Your task to perform on an android device: Do I have any events this weekend? Image 0: 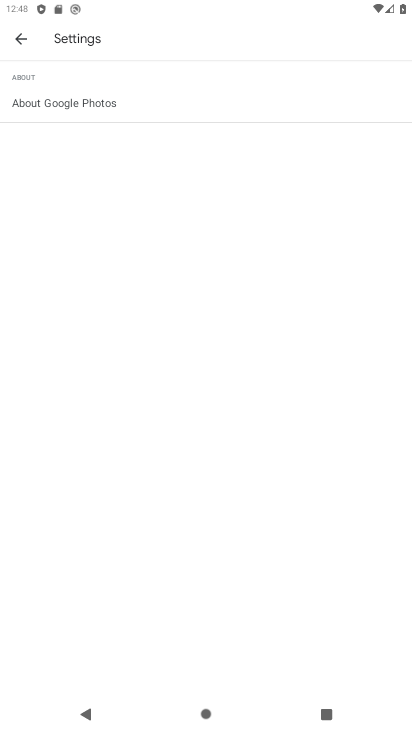
Step 0: press home button
Your task to perform on an android device: Do I have any events this weekend? Image 1: 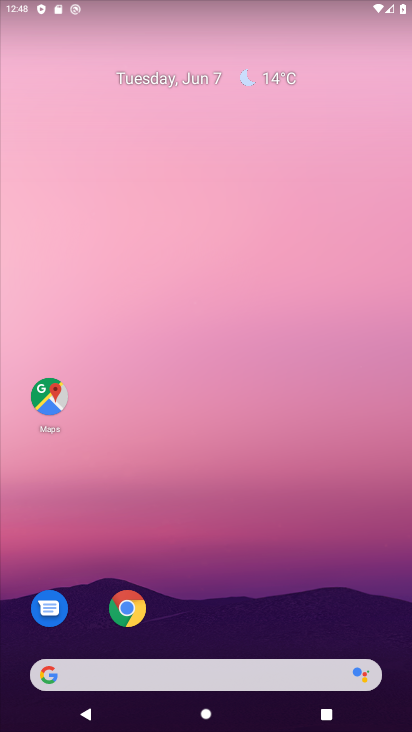
Step 1: drag from (277, 611) to (187, 46)
Your task to perform on an android device: Do I have any events this weekend? Image 2: 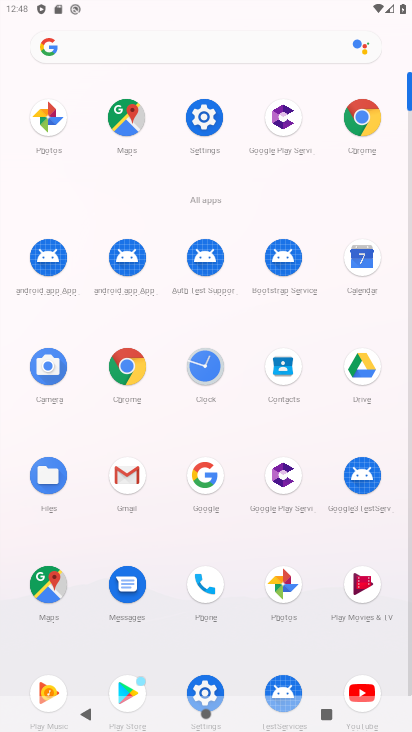
Step 2: click (368, 256)
Your task to perform on an android device: Do I have any events this weekend? Image 3: 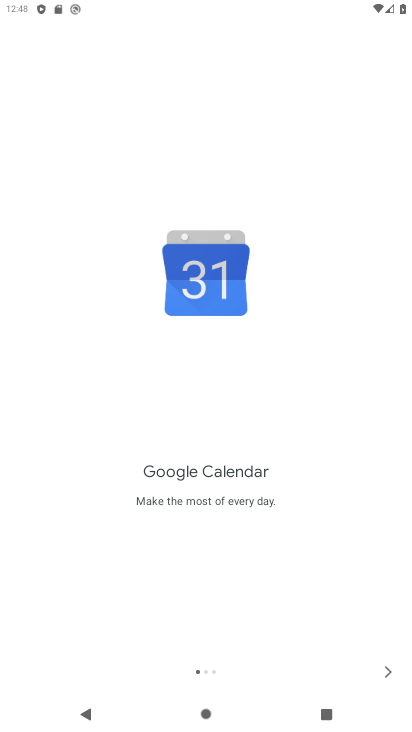
Step 3: click (389, 667)
Your task to perform on an android device: Do I have any events this weekend? Image 4: 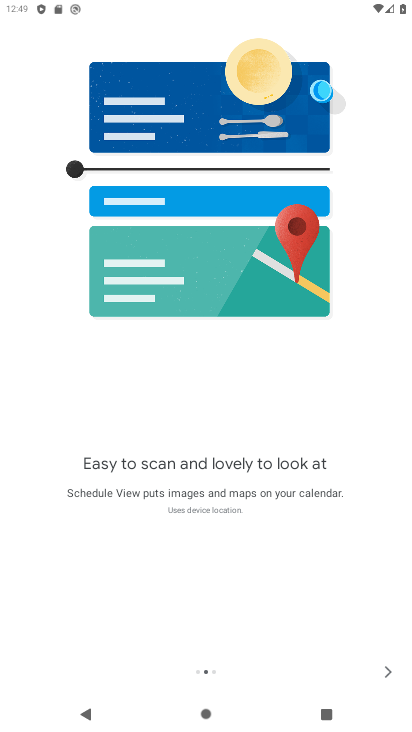
Step 4: click (389, 667)
Your task to perform on an android device: Do I have any events this weekend? Image 5: 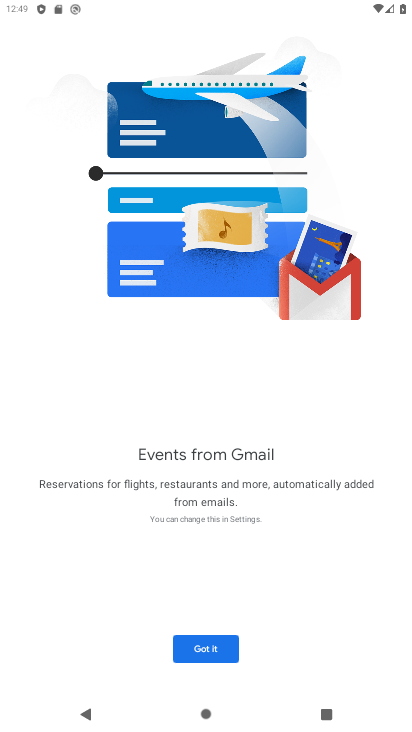
Step 5: click (218, 640)
Your task to perform on an android device: Do I have any events this weekend? Image 6: 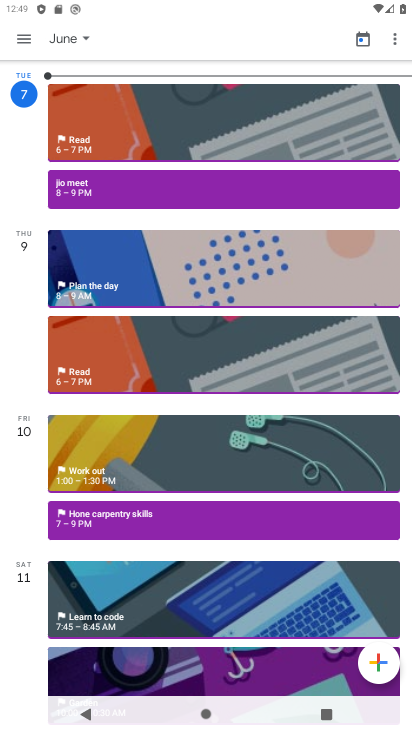
Step 6: task complete